Your task to perform on an android device: Go to Maps Image 0: 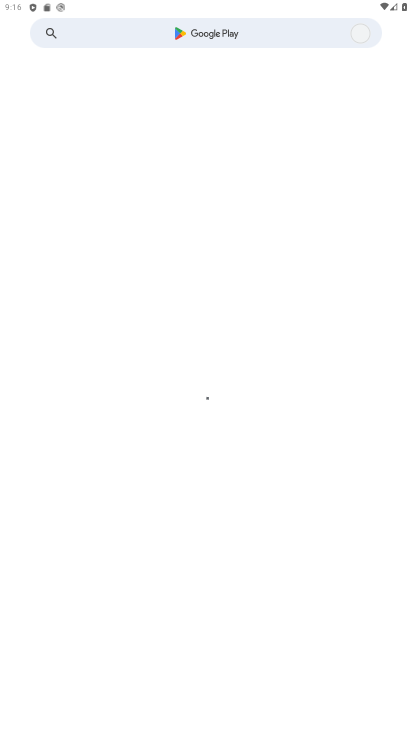
Step 0: press home button
Your task to perform on an android device: Go to Maps Image 1: 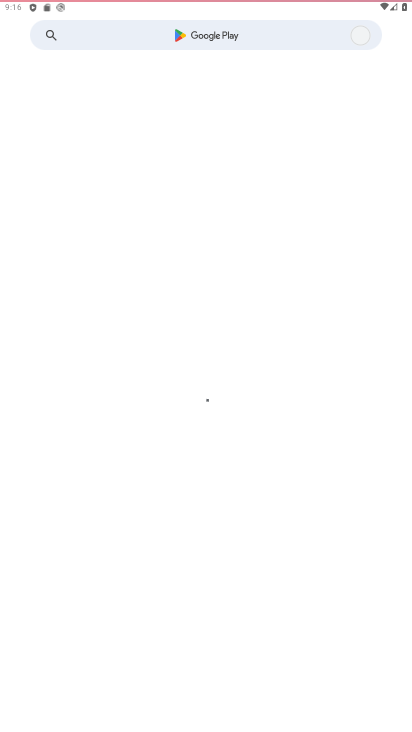
Step 1: press home button
Your task to perform on an android device: Go to Maps Image 2: 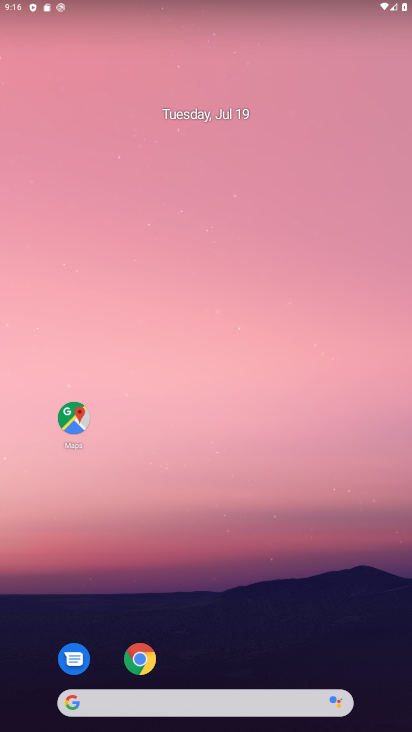
Step 2: drag from (234, 592) to (302, 144)
Your task to perform on an android device: Go to Maps Image 3: 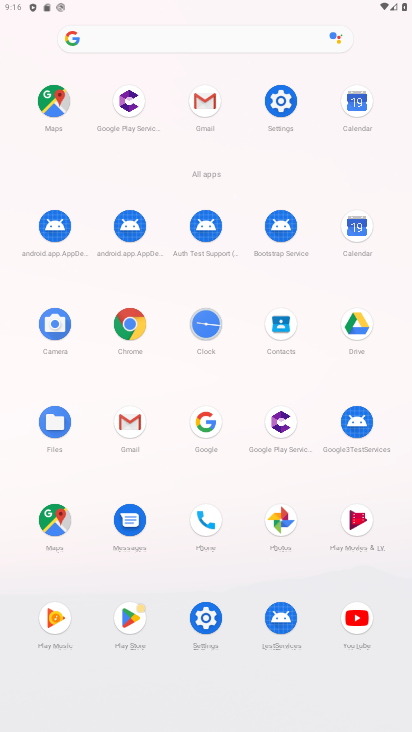
Step 3: click (57, 511)
Your task to perform on an android device: Go to Maps Image 4: 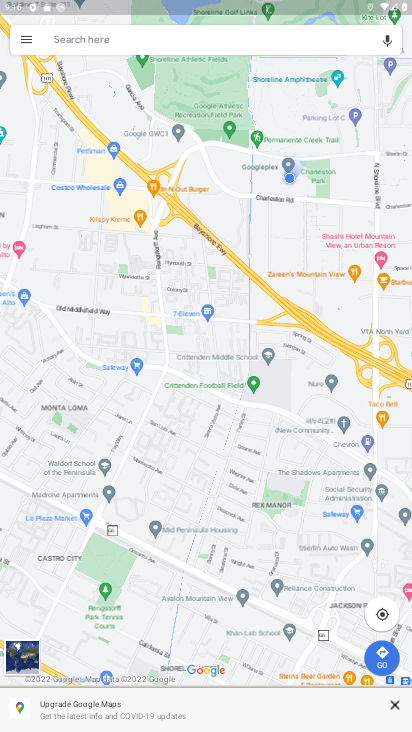
Step 4: task complete